Your task to perform on an android device: Go to accessibility settings Image 0: 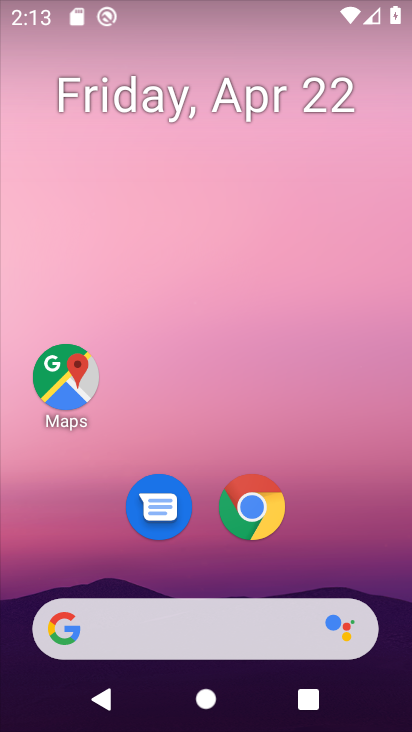
Step 0: drag from (237, 278) to (283, 141)
Your task to perform on an android device: Go to accessibility settings Image 1: 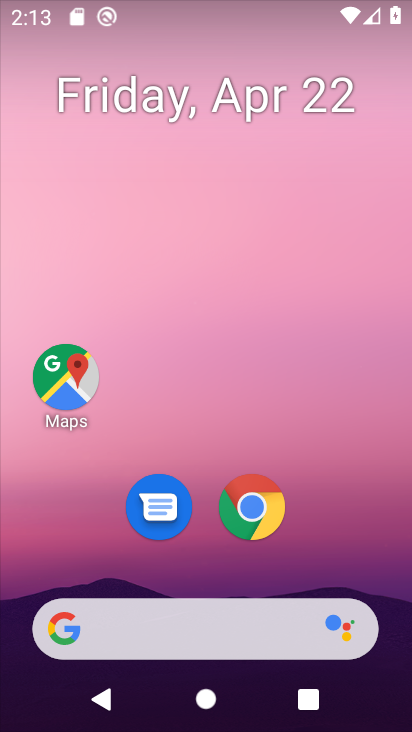
Step 1: drag from (206, 531) to (337, 13)
Your task to perform on an android device: Go to accessibility settings Image 2: 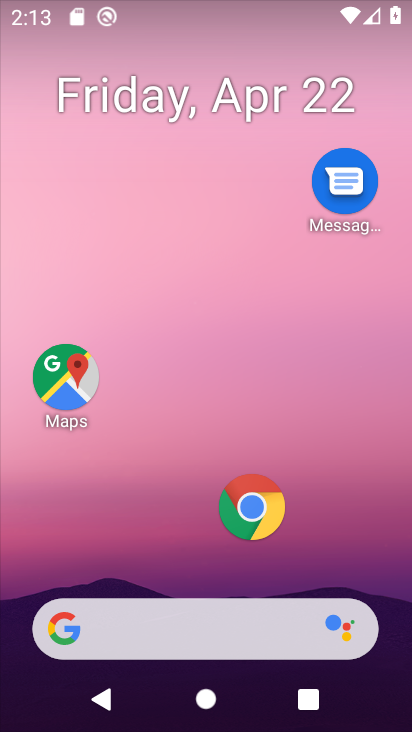
Step 2: drag from (203, 555) to (226, 32)
Your task to perform on an android device: Go to accessibility settings Image 3: 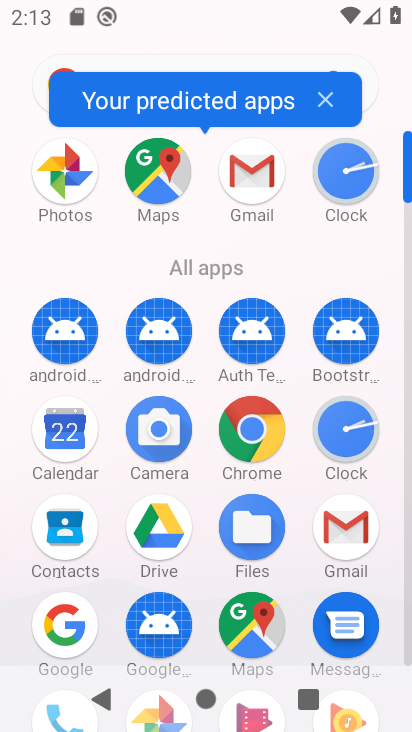
Step 3: drag from (208, 558) to (218, 166)
Your task to perform on an android device: Go to accessibility settings Image 4: 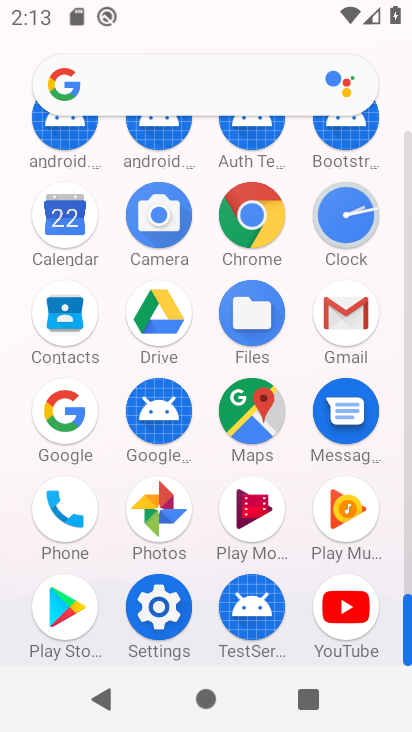
Step 4: click (168, 626)
Your task to perform on an android device: Go to accessibility settings Image 5: 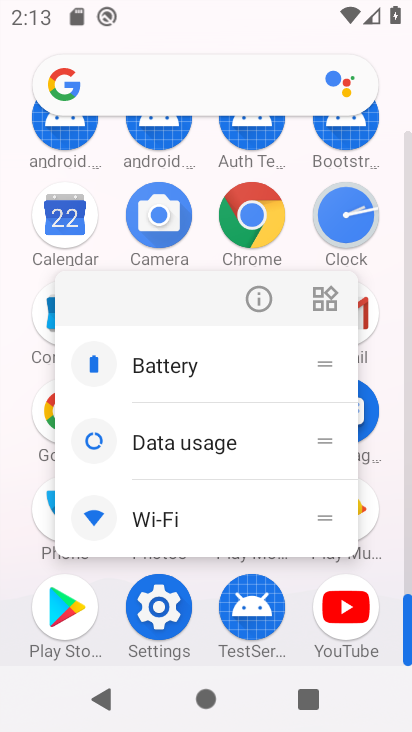
Step 5: click (168, 626)
Your task to perform on an android device: Go to accessibility settings Image 6: 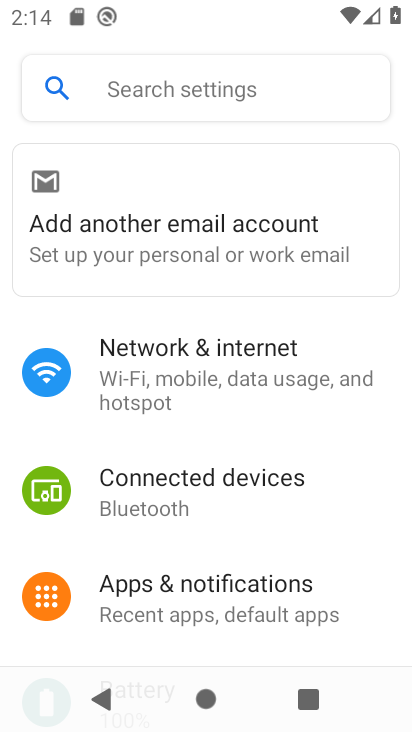
Step 6: drag from (165, 551) to (237, 94)
Your task to perform on an android device: Go to accessibility settings Image 7: 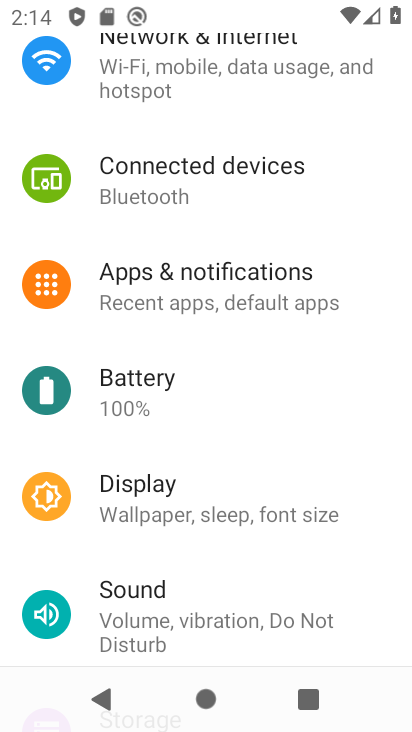
Step 7: drag from (147, 532) to (264, 1)
Your task to perform on an android device: Go to accessibility settings Image 8: 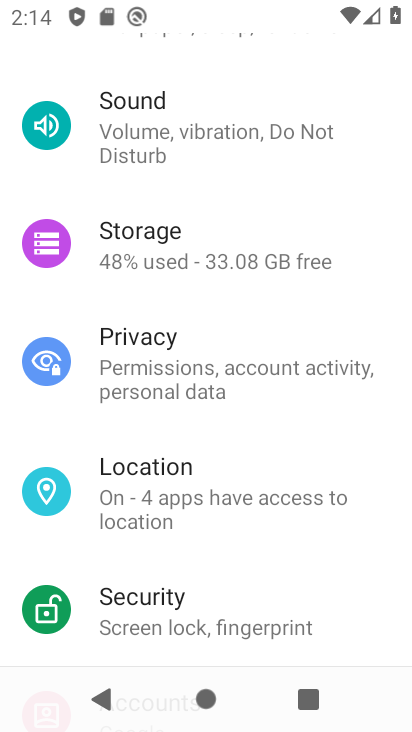
Step 8: drag from (190, 487) to (248, 92)
Your task to perform on an android device: Go to accessibility settings Image 9: 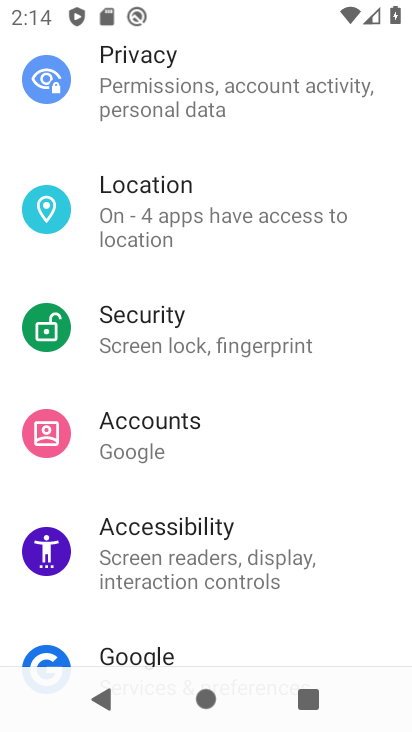
Step 9: drag from (177, 547) to (231, 75)
Your task to perform on an android device: Go to accessibility settings Image 10: 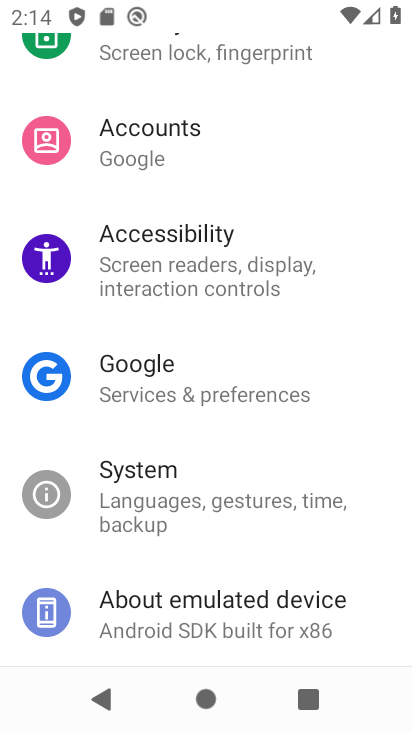
Step 10: click (205, 298)
Your task to perform on an android device: Go to accessibility settings Image 11: 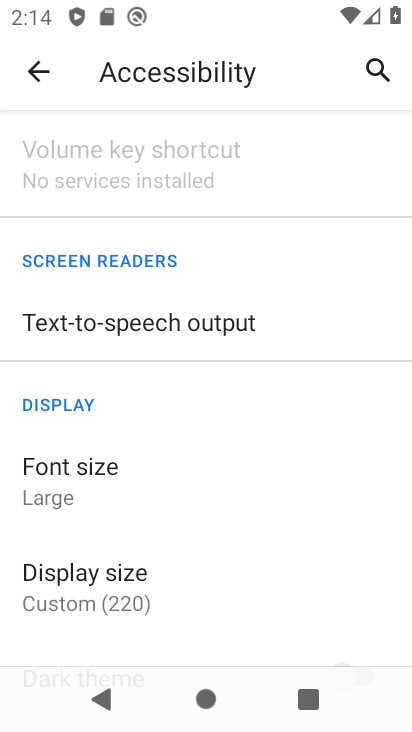
Step 11: task complete